Your task to perform on an android device: turn off sleep mode Image 0: 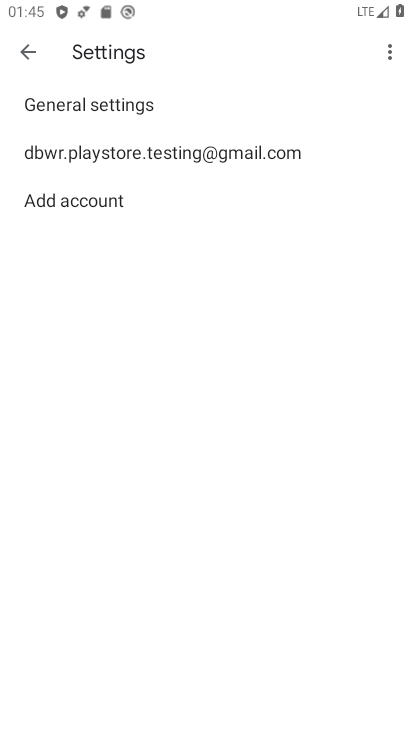
Step 0: press home button
Your task to perform on an android device: turn off sleep mode Image 1: 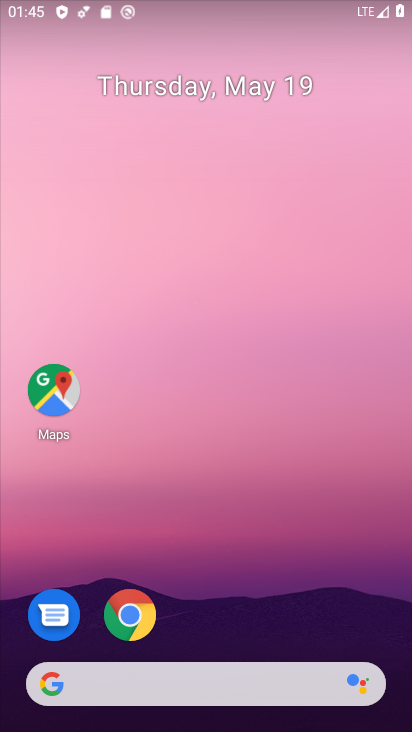
Step 1: click (276, 258)
Your task to perform on an android device: turn off sleep mode Image 2: 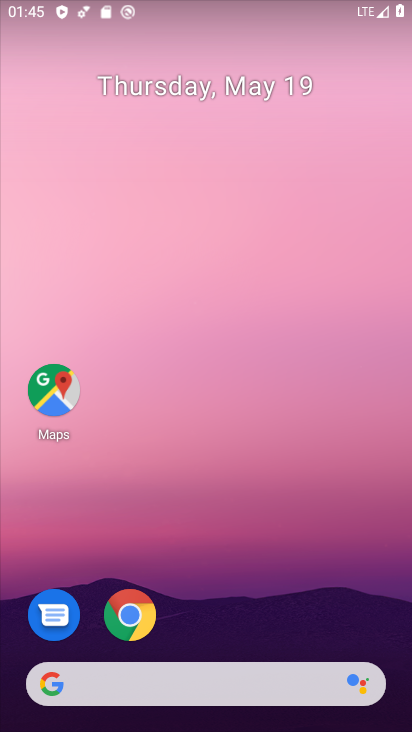
Step 2: drag from (291, 588) to (275, 183)
Your task to perform on an android device: turn off sleep mode Image 3: 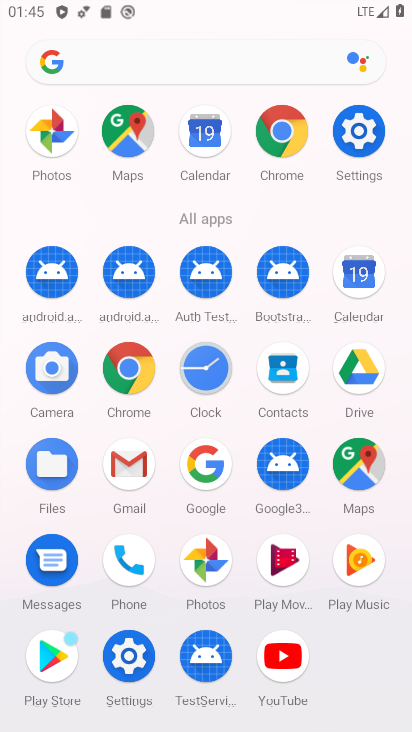
Step 3: click (357, 111)
Your task to perform on an android device: turn off sleep mode Image 4: 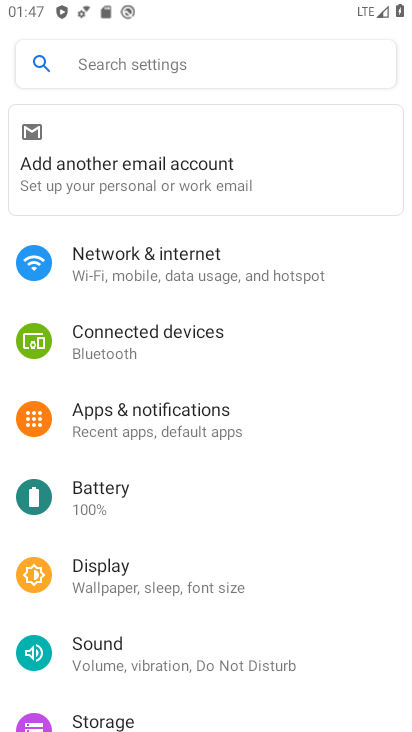
Step 4: task complete